Your task to perform on an android device: Open calendar and show me the second week of next month Image 0: 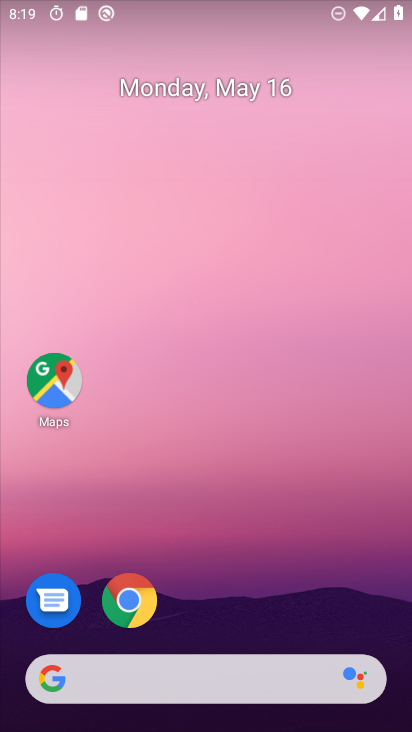
Step 0: press home button
Your task to perform on an android device: Open calendar and show me the second week of next month Image 1: 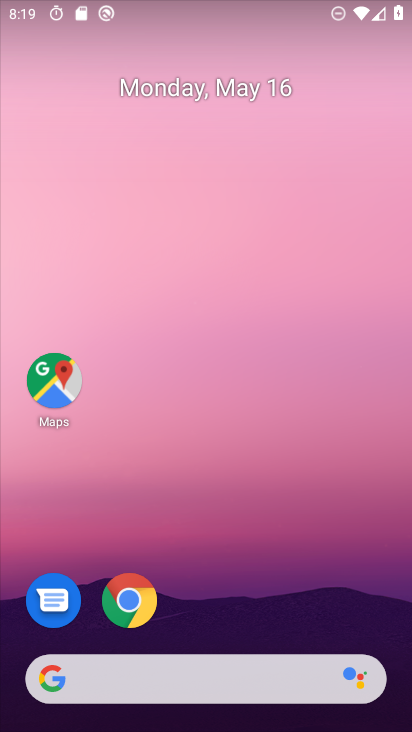
Step 1: drag from (153, 680) to (242, 277)
Your task to perform on an android device: Open calendar and show me the second week of next month Image 2: 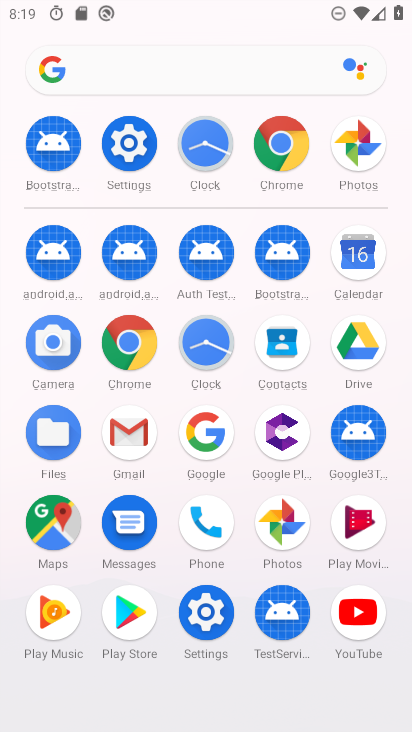
Step 2: click (359, 256)
Your task to perform on an android device: Open calendar and show me the second week of next month Image 3: 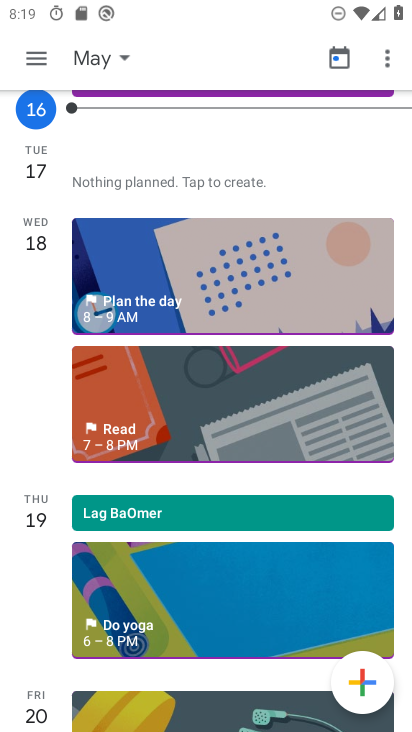
Step 3: click (85, 59)
Your task to perform on an android device: Open calendar and show me the second week of next month Image 4: 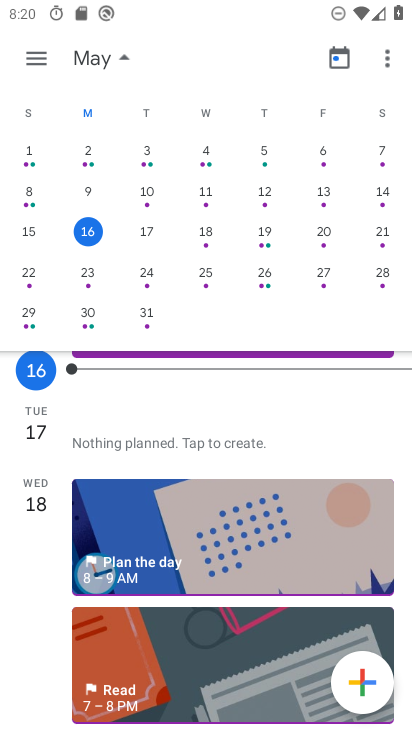
Step 4: drag from (357, 223) to (109, 248)
Your task to perform on an android device: Open calendar and show me the second week of next month Image 5: 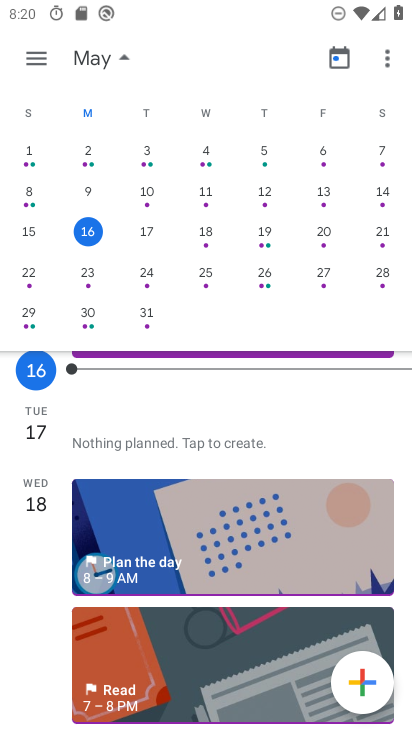
Step 5: drag from (361, 215) to (164, 199)
Your task to perform on an android device: Open calendar and show me the second week of next month Image 6: 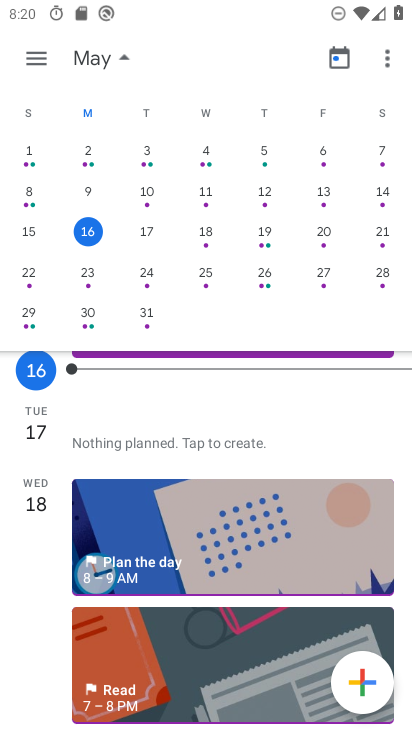
Step 6: drag from (377, 174) to (53, 175)
Your task to perform on an android device: Open calendar and show me the second week of next month Image 7: 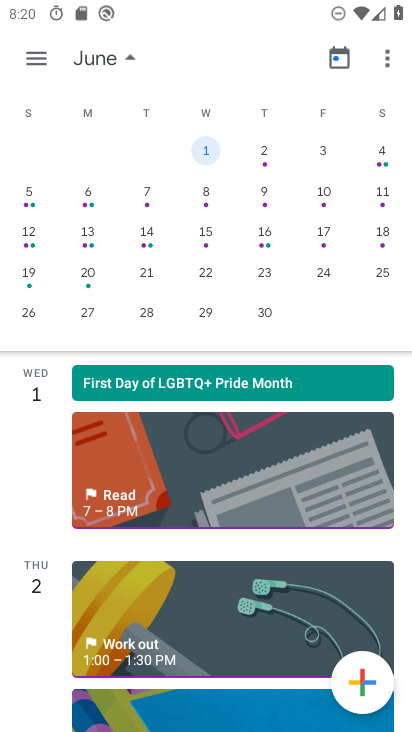
Step 7: click (34, 200)
Your task to perform on an android device: Open calendar and show me the second week of next month Image 8: 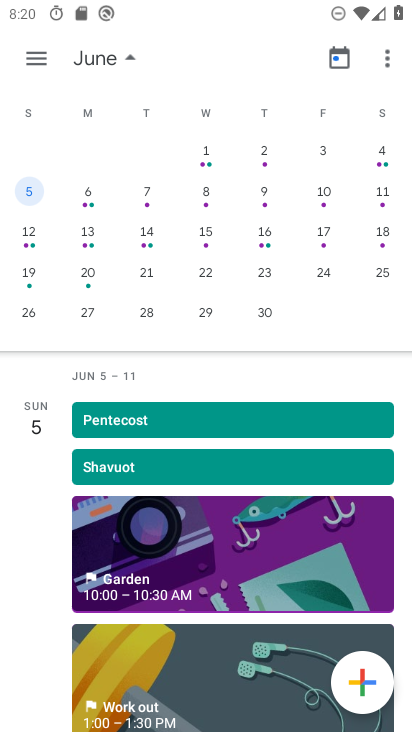
Step 8: click (44, 61)
Your task to perform on an android device: Open calendar and show me the second week of next month Image 9: 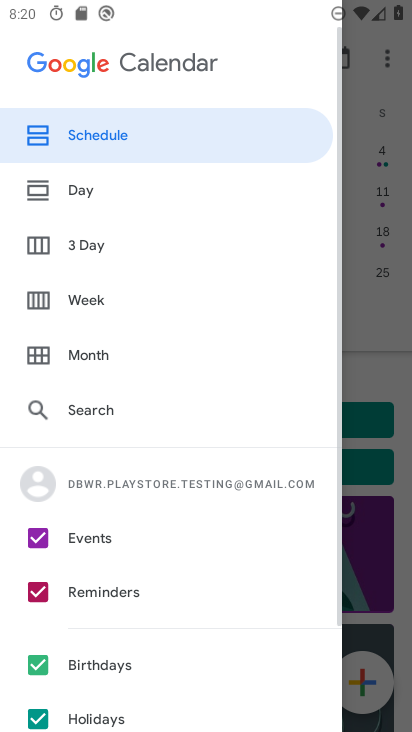
Step 9: click (92, 307)
Your task to perform on an android device: Open calendar and show me the second week of next month Image 10: 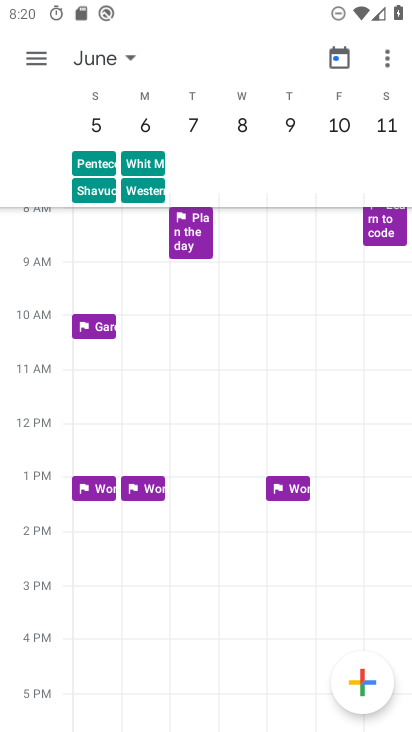
Step 10: task complete